Your task to perform on an android device: create a new album in the google photos Image 0: 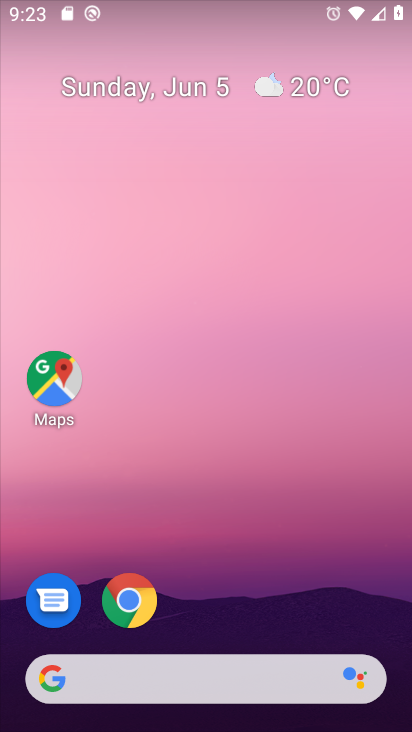
Step 0: drag from (225, 571) to (252, 30)
Your task to perform on an android device: create a new album in the google photos Image 1: 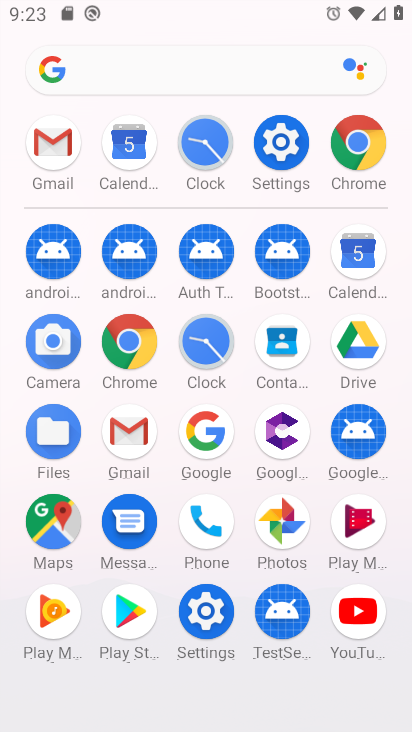
Step 1: click (286, 518)
Your task to perform on an android device: create a new album in the google photos Image 2: 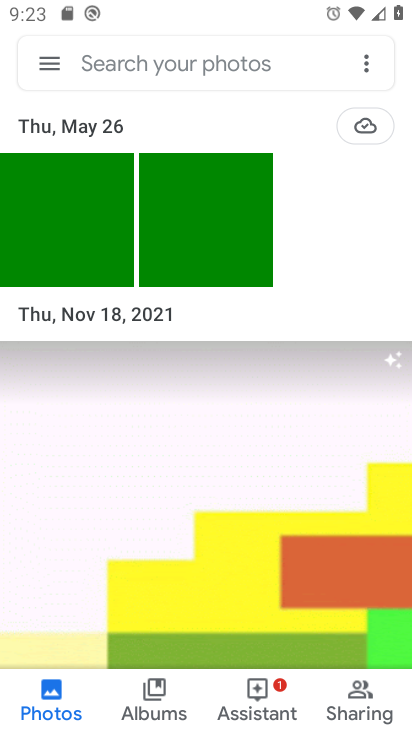
Step 2: click (146, 697)
Your task to perform on an android device: create a new album in the google photos Image 3: 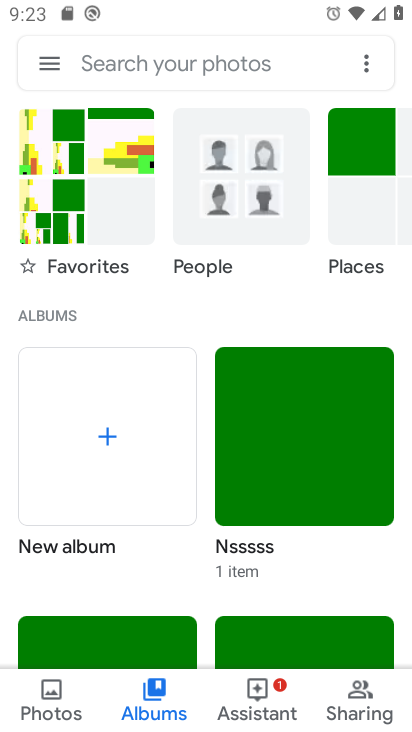
Step 3: click (108, 434)
Your task to perform on an android device: create a new album in the google photos Image 4: 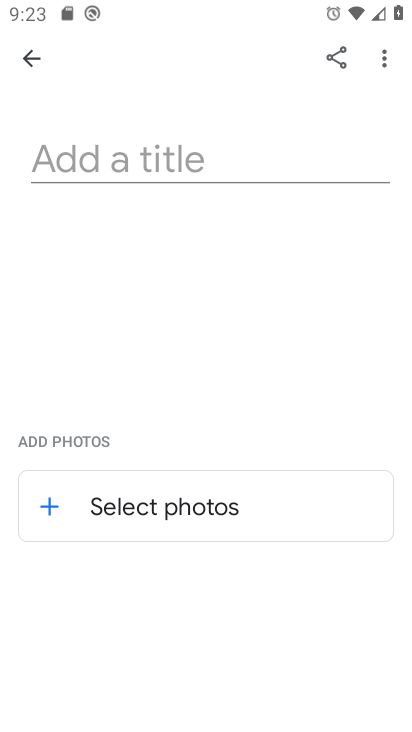
Step 4: click (199, 148)
Your task to perform on an android device: create a new album in the google photos Image 5: 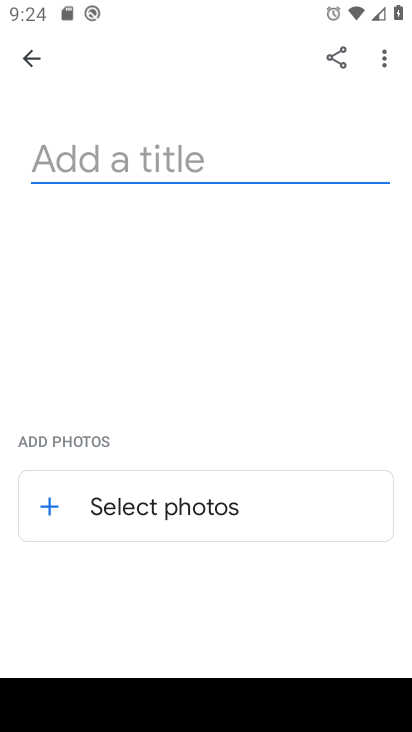
Step 5: type "Jambu Dweep"
Your task to perform on an android device: create a new album in the google photos Image 6: 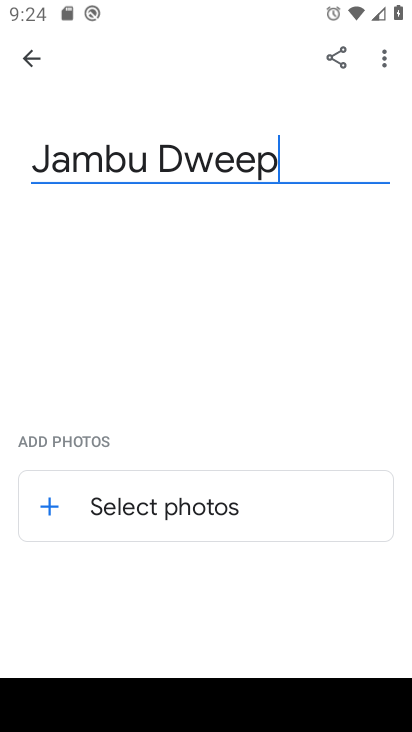
Step 6: click (40, 501)
Your task to perform on an android device: create a new album in the google photos Image 7: 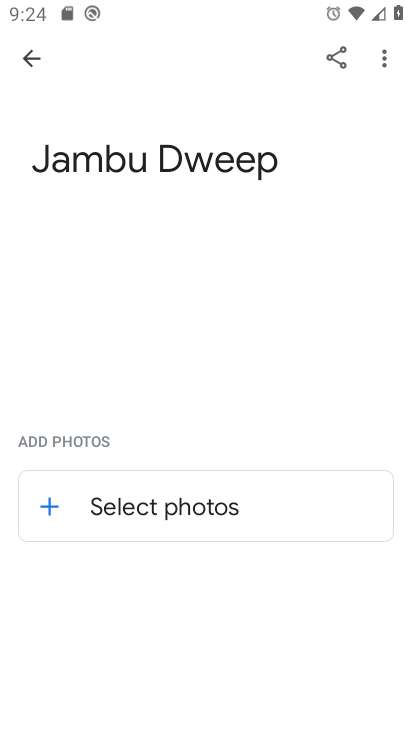
Step 7: click (40, 501)
Your task to perform on an android device: create a new album in the google photos Image 8: 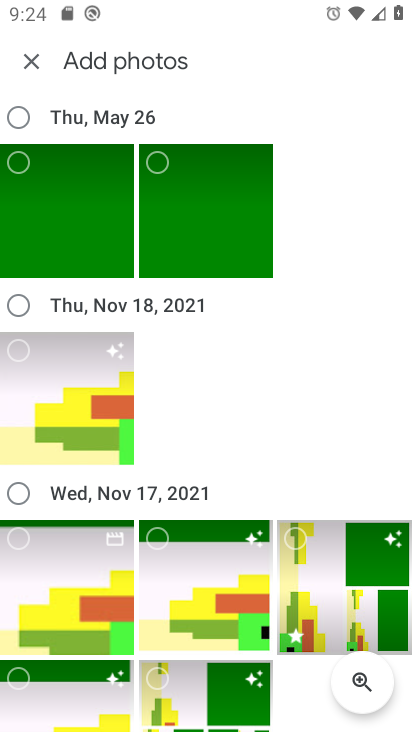
Step 8: click (17, 343)
Your task to perform on an android device: create a new album in the google photos Image 9: 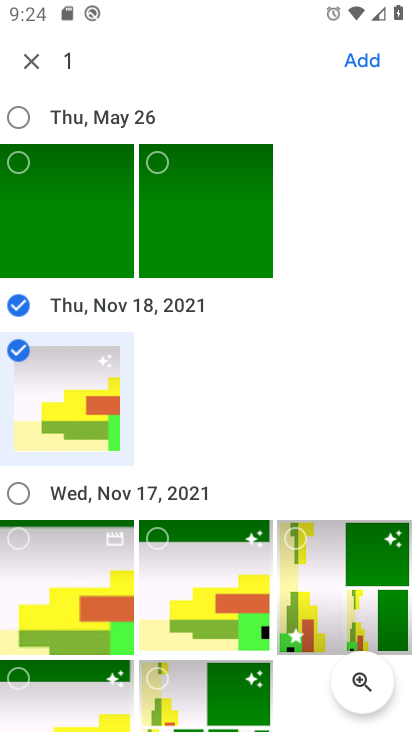
Step 9: click (344, 46)
Your task to perform on an android device: create a new album in the google photos Image 10: 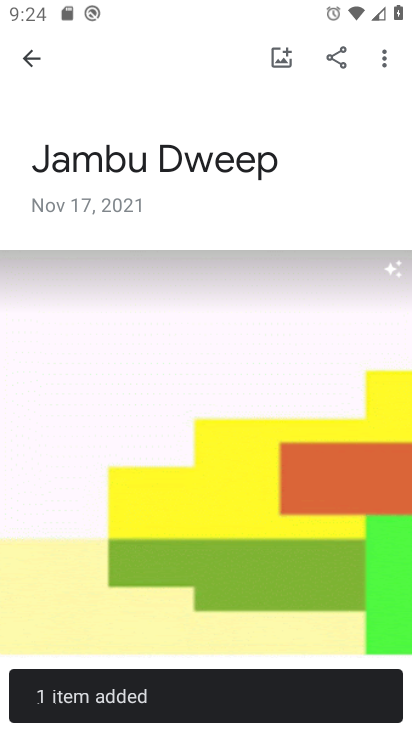
Step 10: task complete